Your task to perform on an android device: remove spam from my inbox in the gmail app Image 0: 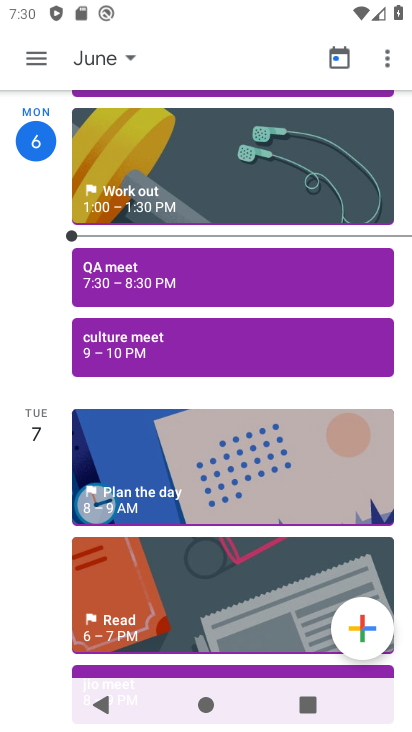
Step 0: press home button
Your task to perform on an android device: remove spam from my inbox in the gmail app Image 1: 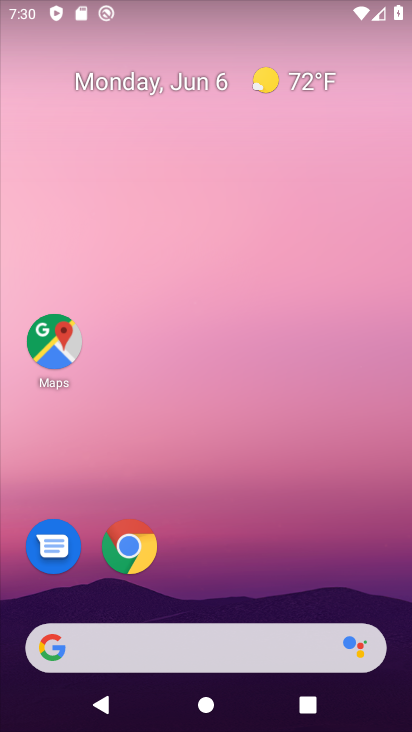
Step 1: drag from (199, 616) to (187, 269)
Your task to perform on an android device: remove spam from my inbox in the gmail app Image 2: 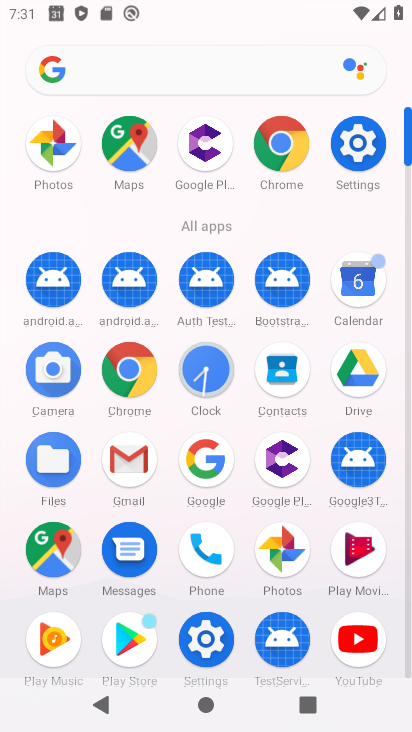
Step 2: click (134, 452)
Your task to perform on an android device: remove spam from my inbox in the gmail app Image 3: 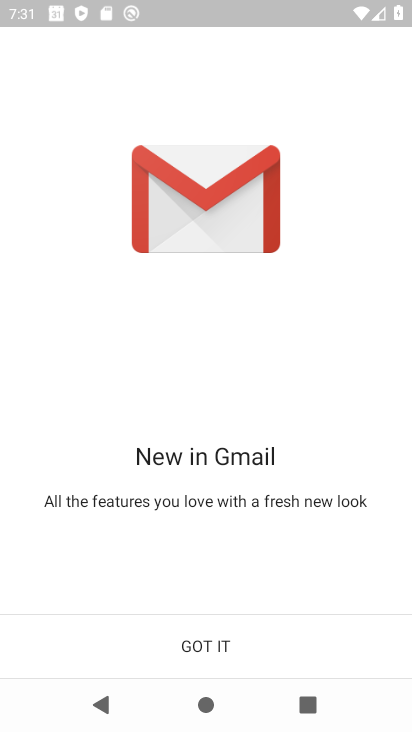
Step 3: click (187, 648)
Your task to perform on an android device: remove spam from my inbox in the gmail app Image 4: 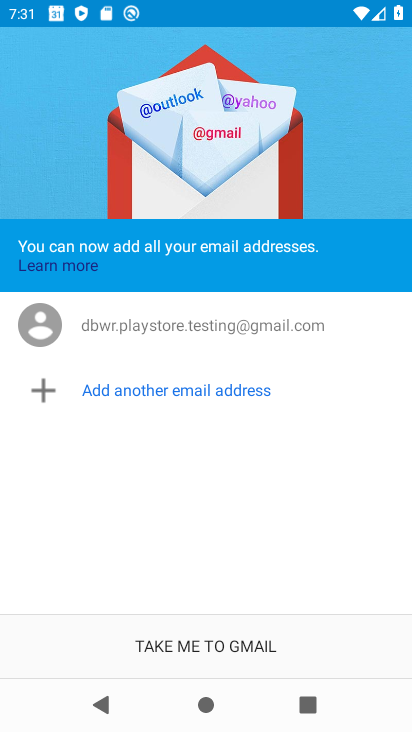
Step 4: click (187, 648)
Your task to perform on an android device: remove spam from my inbox in the gmail app Image 5: 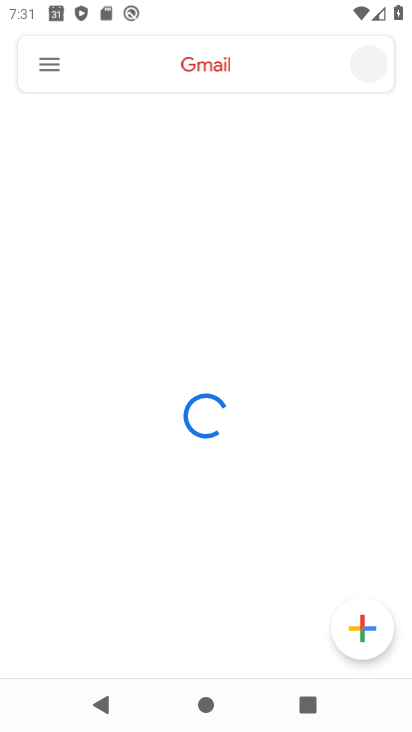
Step 5: click (42, 63)
Your task to perform on an android device: remove spam from my inbox in the gmail app Image 6: 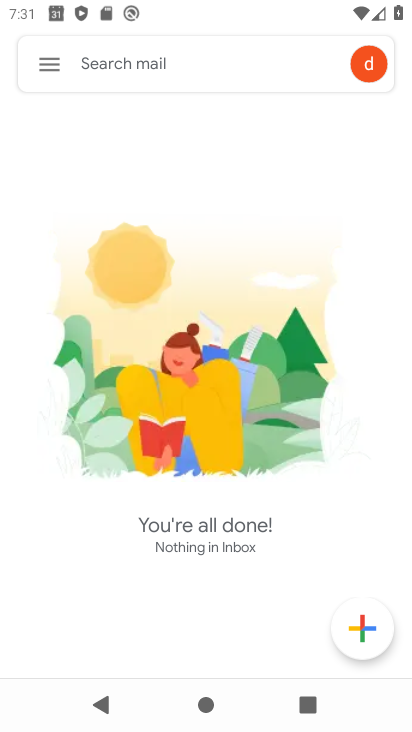
Step 6: click (47, 73)
Your task to perform on an android device: remove spam from my inbox in the gmail app Image 7: 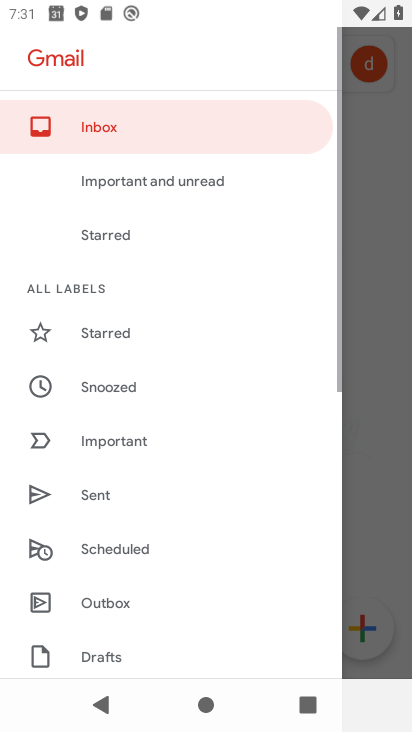
Step 7: drag from (116, 577) to (167, 244)
Your task to perform on an android device: remove spam from my inbox in the gmail app Image 8: 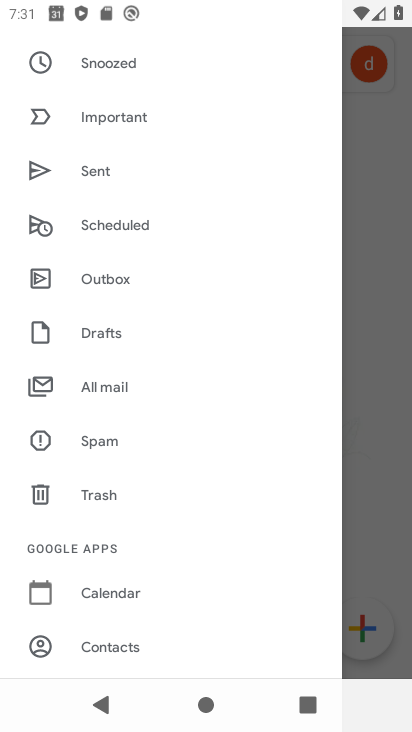
Step 8: click (104, 432)
Your task to perform on an android device: remove spam from my inbox in the gmail app Image 9: 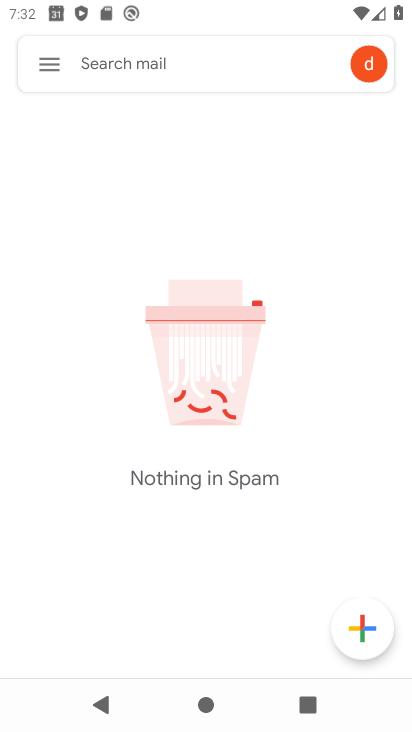
Step 9: task complete